Your task to perform on an android device: Open calendar and show me the fourth week of next month Image 0: 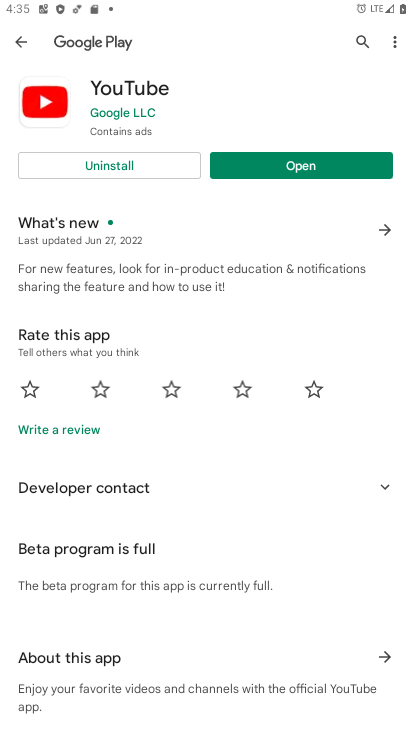
Step 0: press home button
Your task to perform on an android device: Open calendar and show me the fourth week of next month Image 1: 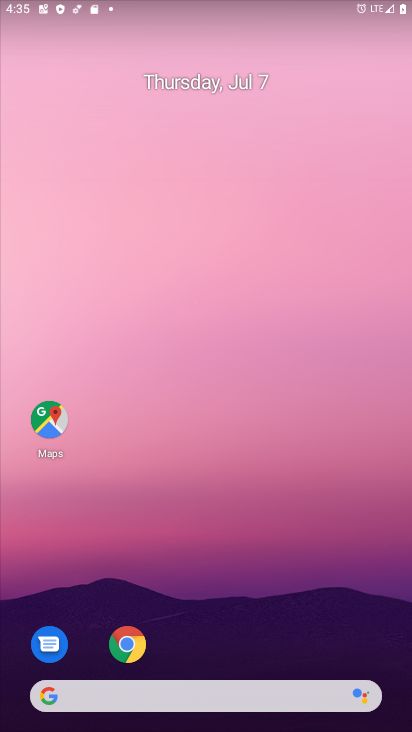
Step 1: drag from (235, 630) to (241, 216)
Your task to perform on an android device: Open calendar and show me the fourth week of next month Image 2: 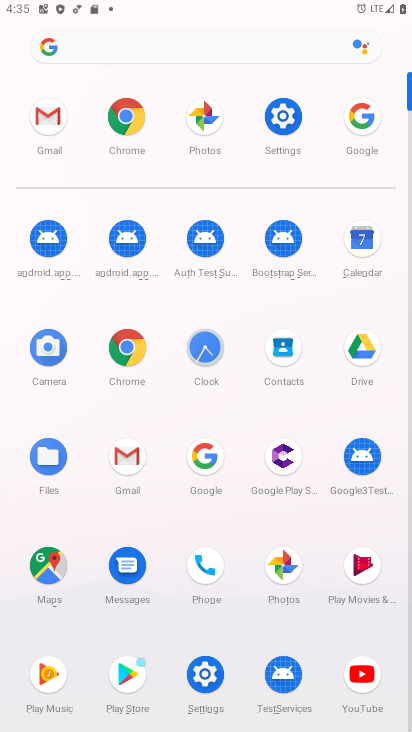
Step 2: click (363, 238)
Your task to perform on an android device: Open calendar and show me the fourth week of next month Image 3: 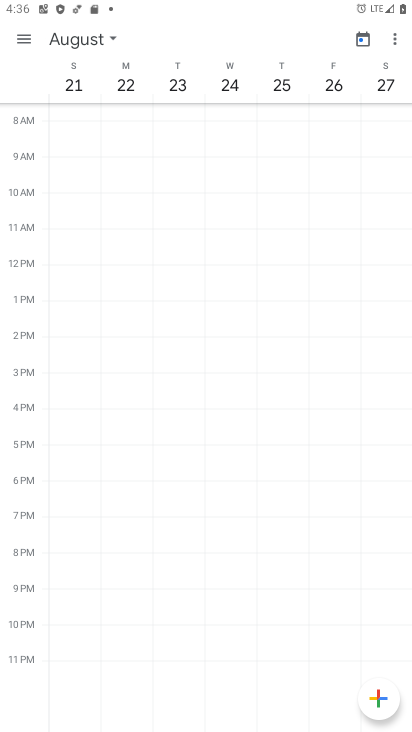
Step 3: click (362, 41)
Your task to perform on an android device: Open calendar and show me the fourth week of next month Image 4: 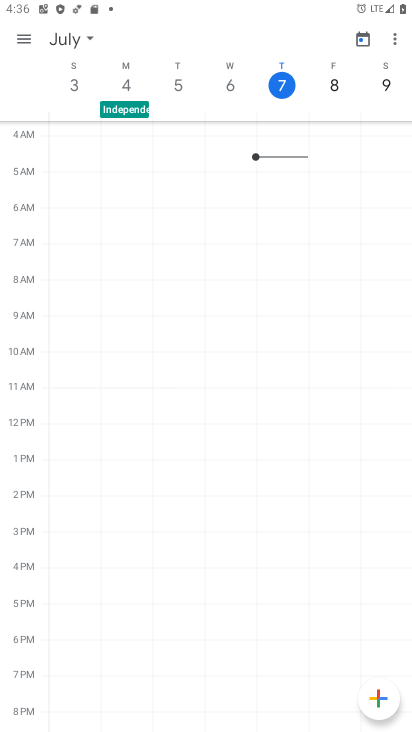
Step 4: click (90, 38)
Your task to perform on an android device: Open calendar and show me the fourth week of next month Image 5: 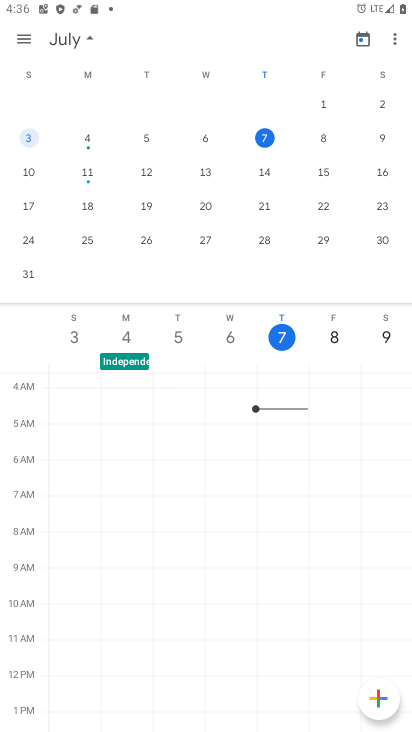
Step 5: drag from (361, 190) to (15, 228)
Your task to perform on an android device: Open calendar and show me the fourth week of next month Image 6: 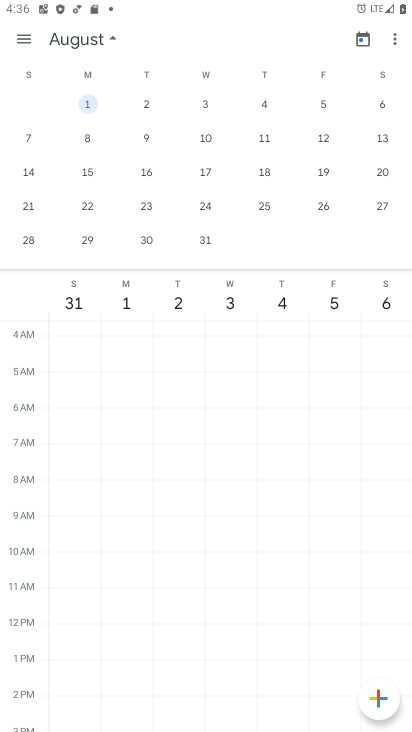
Step 6: click (89, 207)
Your task to perform on an android device: Open calendar and show me the fourth week of next month Image 7: 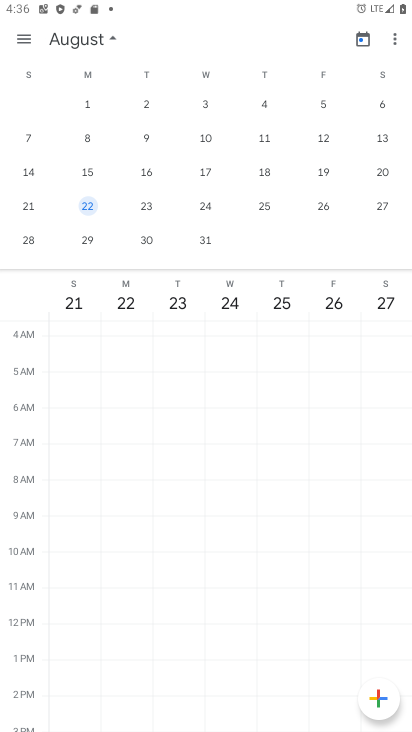
Step 7: click (28, 37)
Your task to perform on an android device: Open calendar and show me the fourth week of next month Image 8: 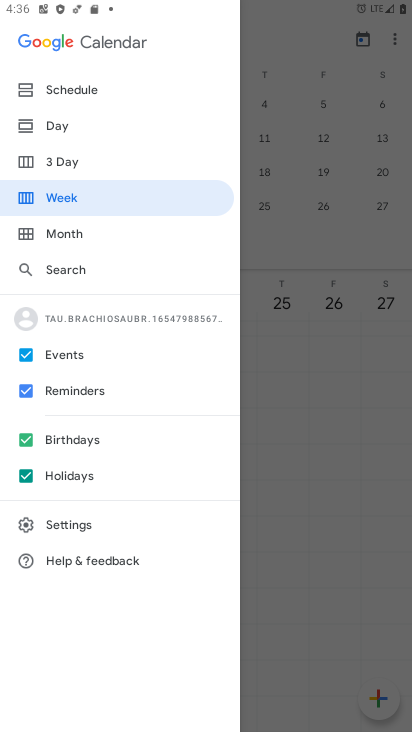
Step 8: click (57, 190)
Your task to perform on an android device: Open calendar and show me the fourth week of next month Image 9: 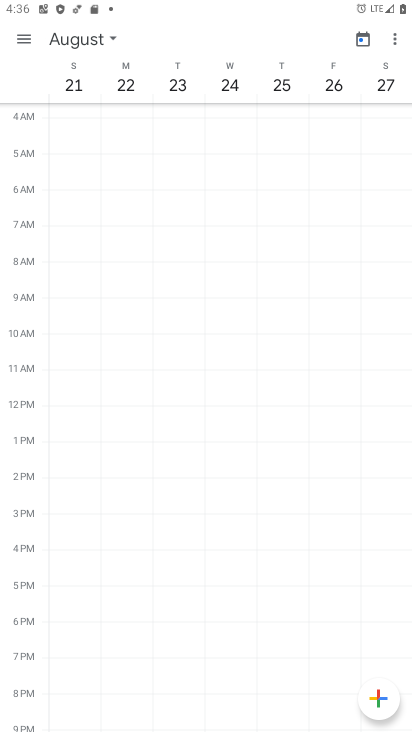
Step 9: task complete